Your task to perform on an android device: Open Yahoo.com Image 0: 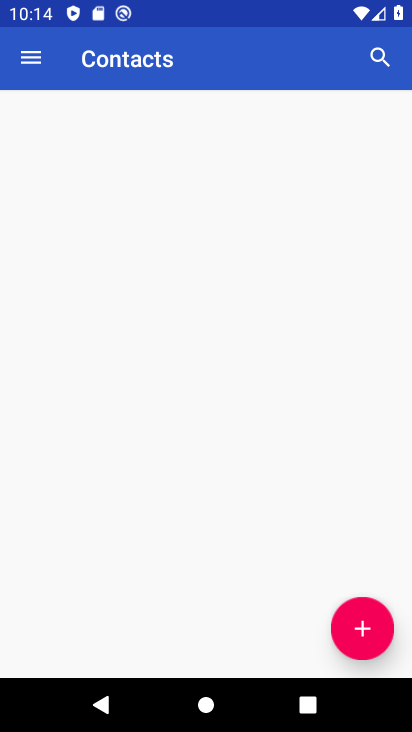
Step 0: drag from (233, 574) to (411, 600)
Your task to perform on an android device: Open Yahoo.com Image 1: 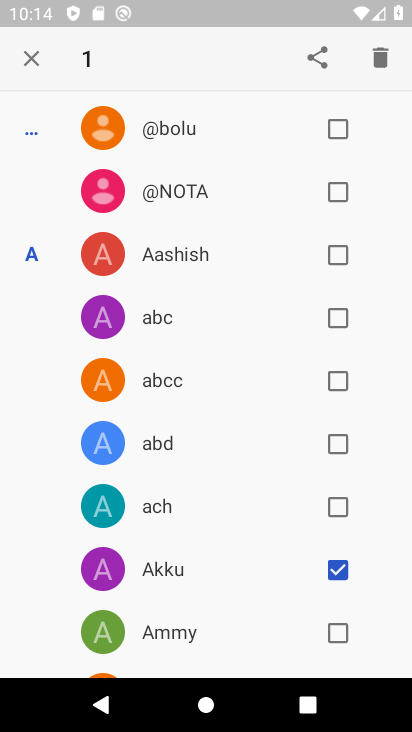
Step 1: press home button
Your task to perform on an android device: Open Yahoo.com Image 2: 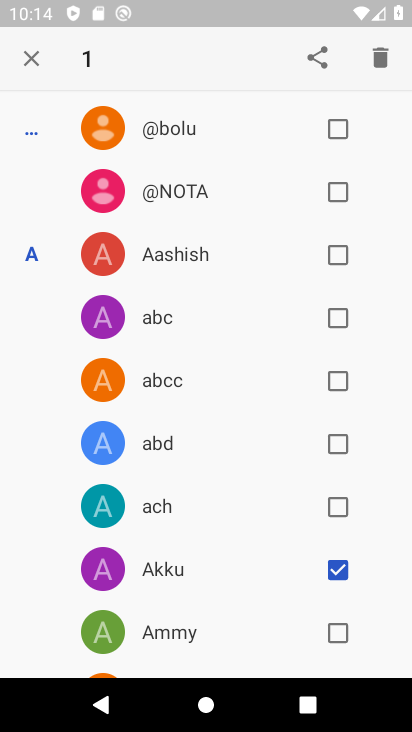
Step 2: click (411, 600)
Your task to perform on an android device: Open Yahoo.com Image 3: 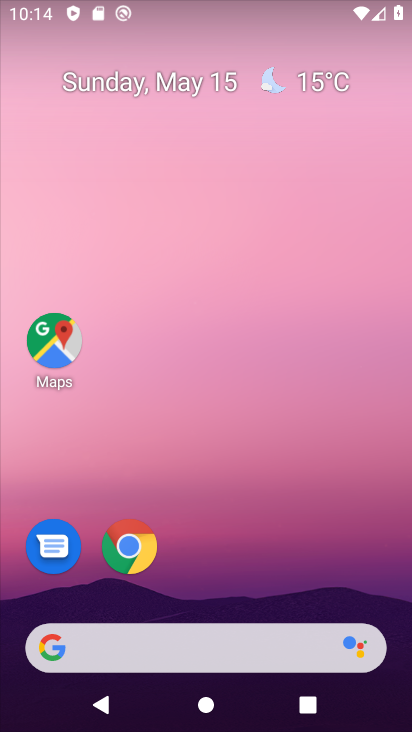
Step 3: click (143, 551)
Your task to perform on an android device: Open Yahoo.com Image 4: 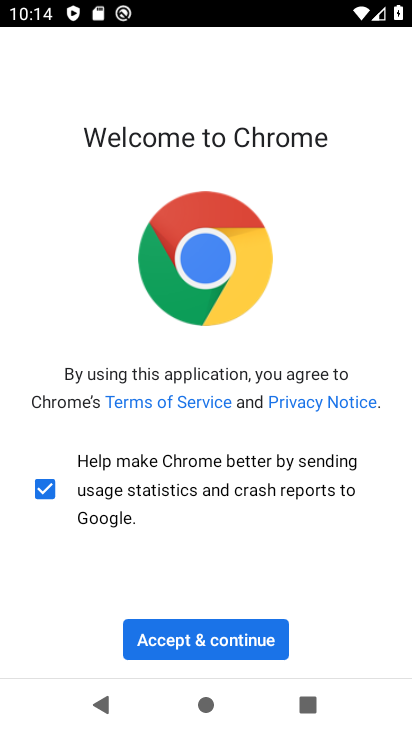
Step 4: click (211, 650)
Your task to perform on an android device: Open Yahoo.com Image 5: 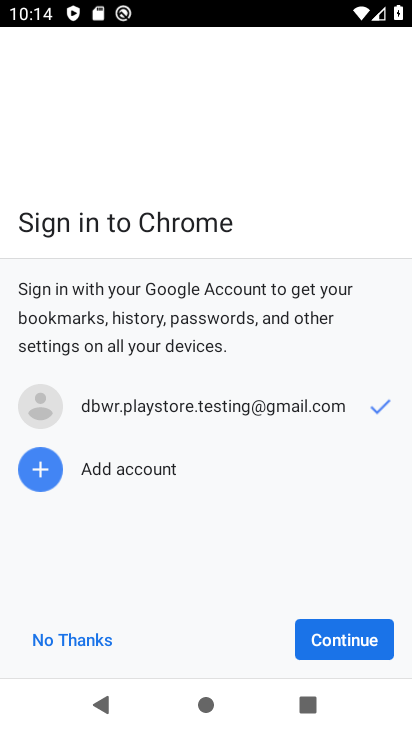
Step 5: click (306, 643)
Your task to perform on an android device: Open Yahoo.com Image 6: 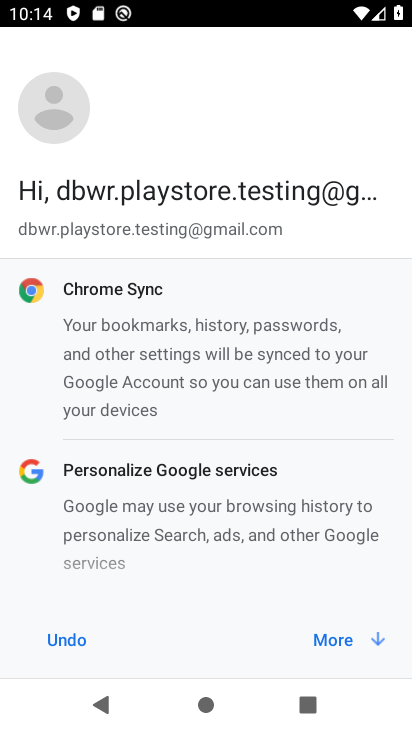
Step 6: click (337, 640)
Your task to perform on an android device: Open Yahoo.com Image 7: 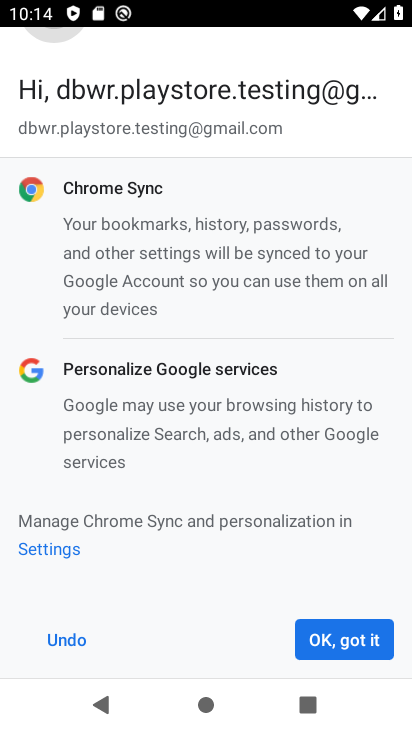
Step 7: click (337, 640)
Your task to perform on an android device: Open Yahoo.com Image 8: 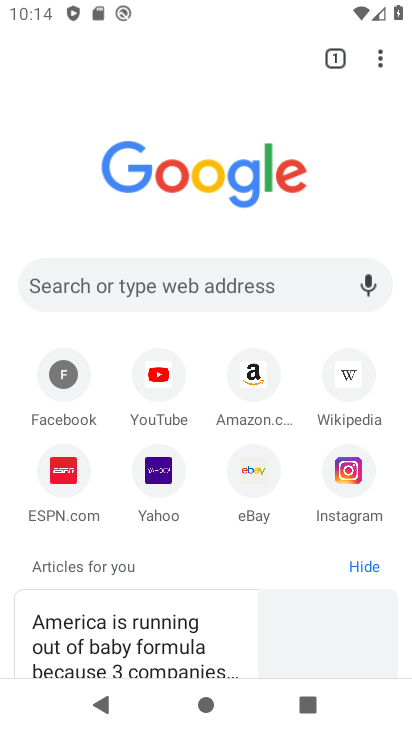
Step 8: click (140, 481)
Your task to perform on an android device: Open Yahoo.com Image 9: 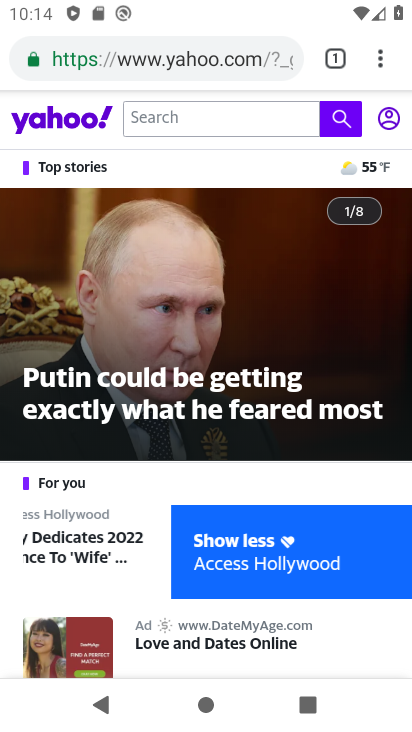
Step 9: task complete